Your task to perform on an android device: set the stopwatch Image 0: 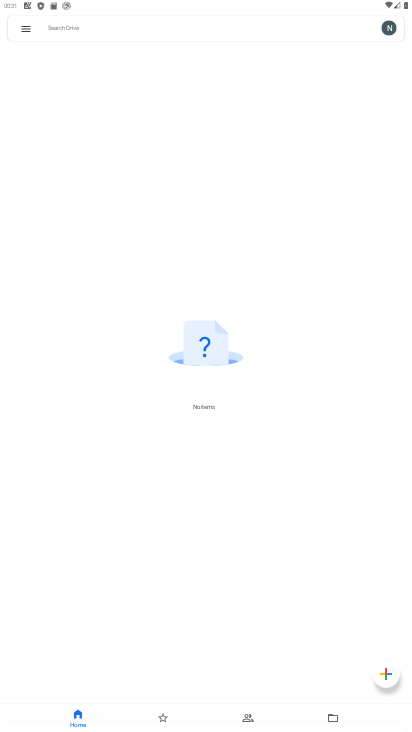
Step 0: press home button
Your task to perform on an android device: set the stopwatch Image 1: 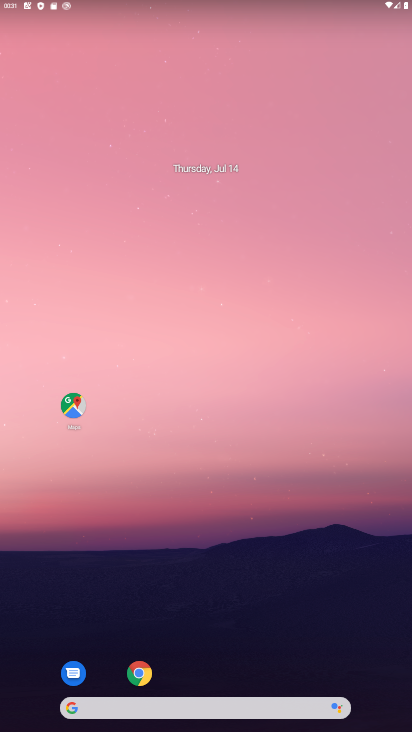
Step 1: drag from (206, 666) to (179, 250)
Your task to perform on an android device: set the stopwatch Image 2: 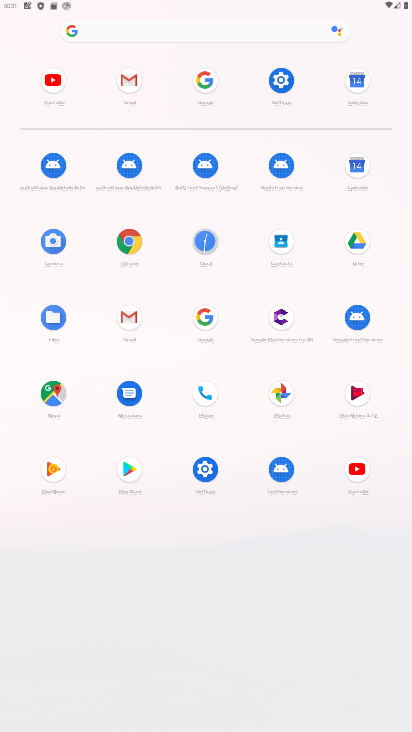
Step 2: click (193, 250)
Your task to perform on an android device: set the stopwatch Image 3: 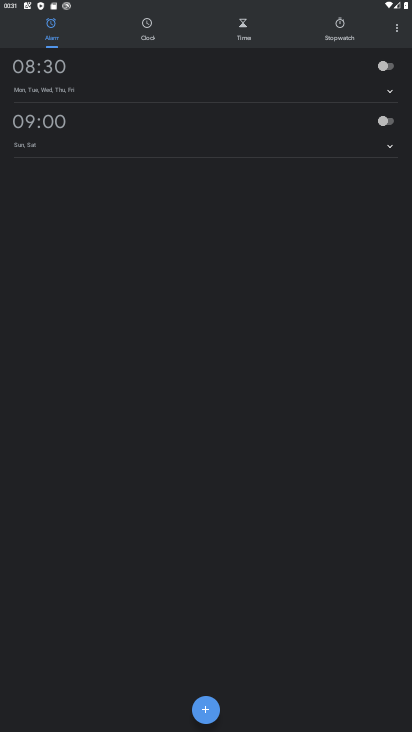
Step 3: click (339, 27)
Your task to perform on an android device: set the stopwatch Image 4: 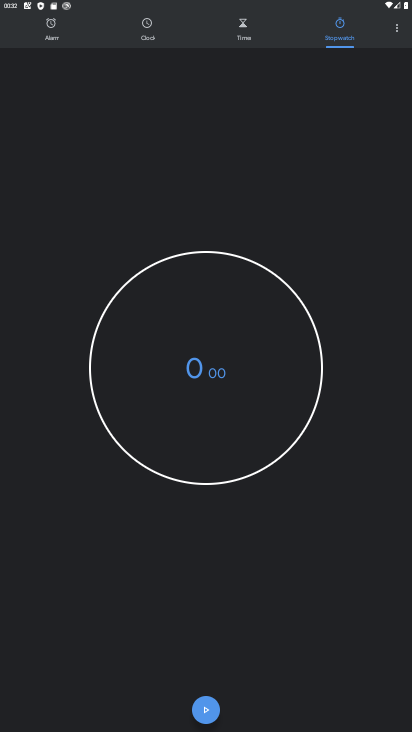
Step 4: click (212, 698)
Your task to perform on an android device: set the stopwatch Image 5: 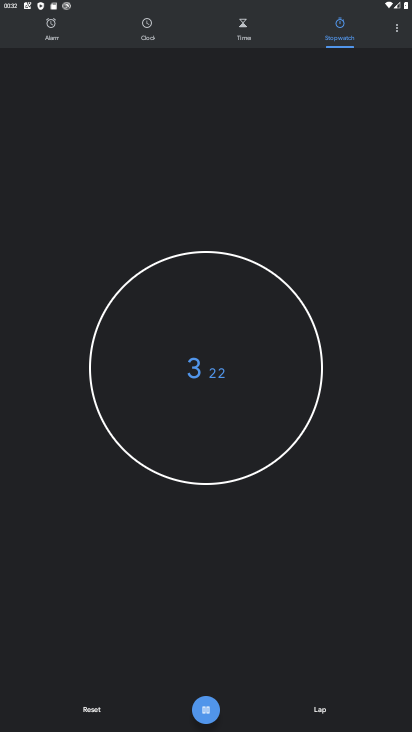
Step 5: task complete